Your task to perform on an android device: Go to location settings Image 0: 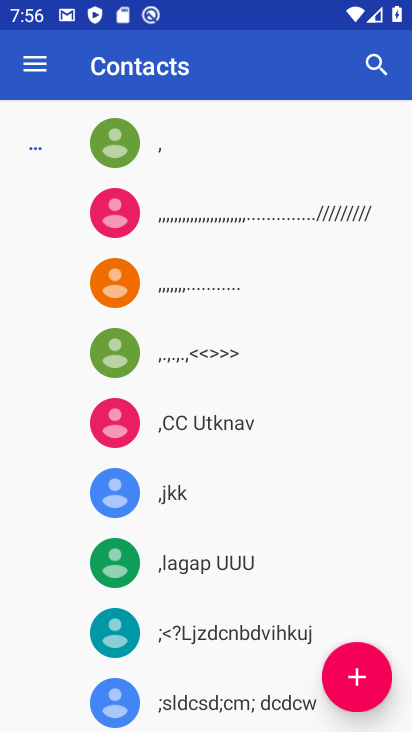
Step 0: press home button
Your task to perform on an android device: Go to location settings Image 1: 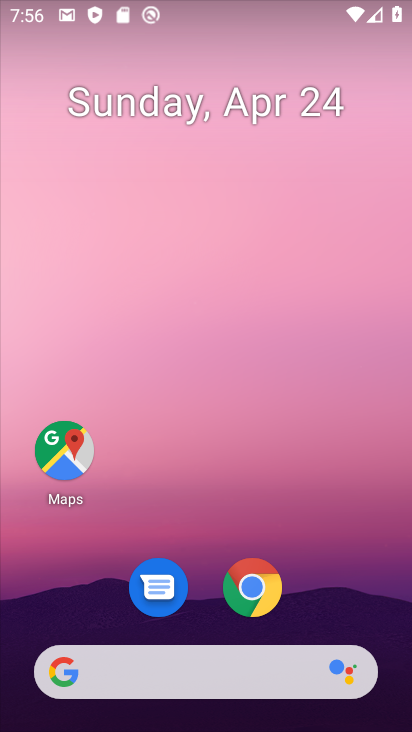
Step 1: drag from (318, 585) to (285, 0)
Your task to perform on an android device: Go to location settings Image 2: 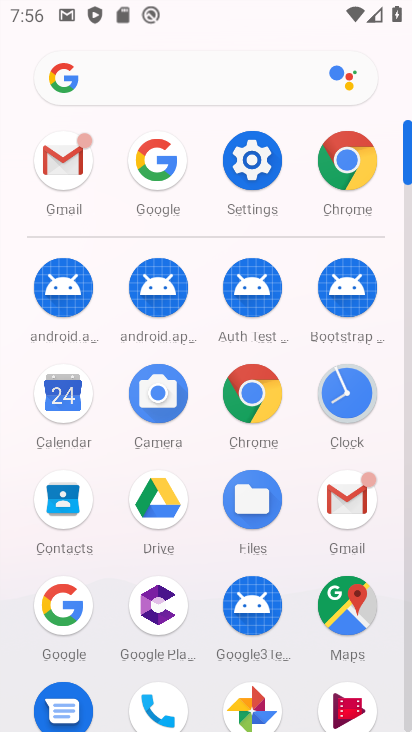
Step 2: click (249, 179)
Your task to perform on an android device: Go to location settings Image 3: 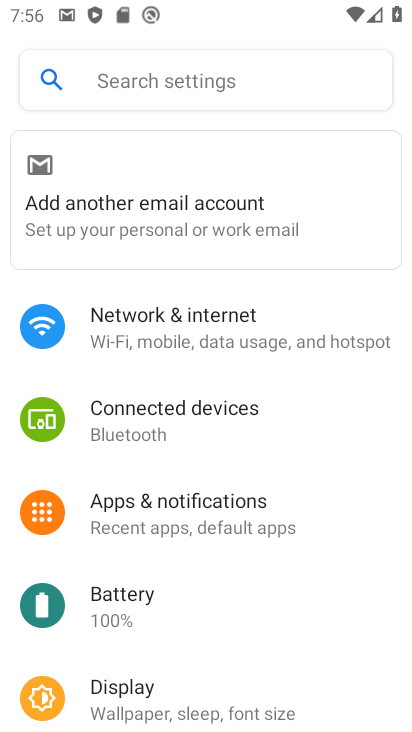
Step 3: drag from (196, 596) to (215, 351)
Your task to perform on an android device: Go to location settings Image 4: 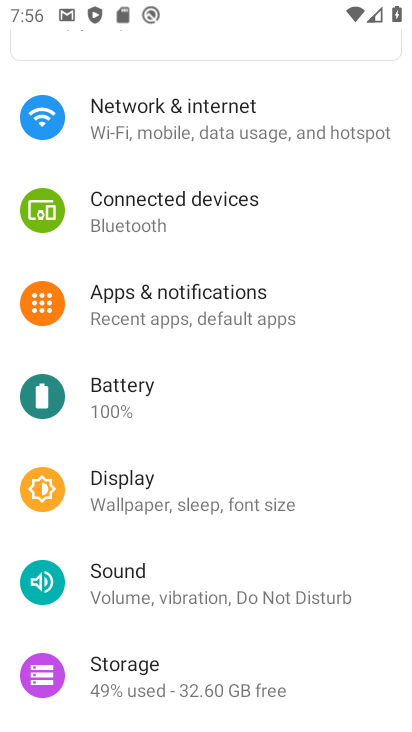
Step 4: drag from (267, 624) to (262, 326)
Your task to perform on an android device: Go to location settings Image 5: 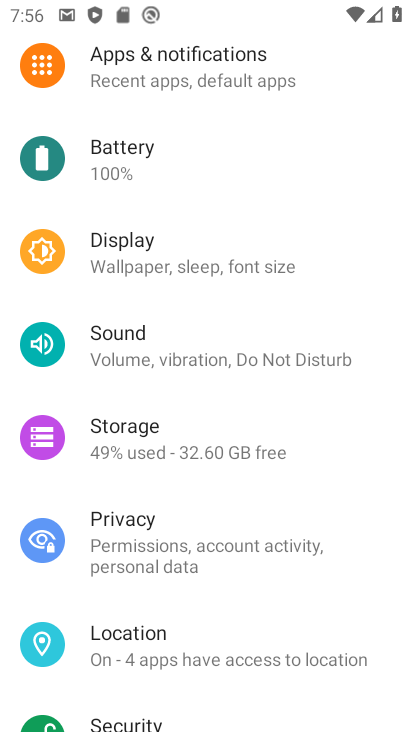
Step 5: click (184, 628)
Your task to perform on an android device: Go to location settings Image 6: 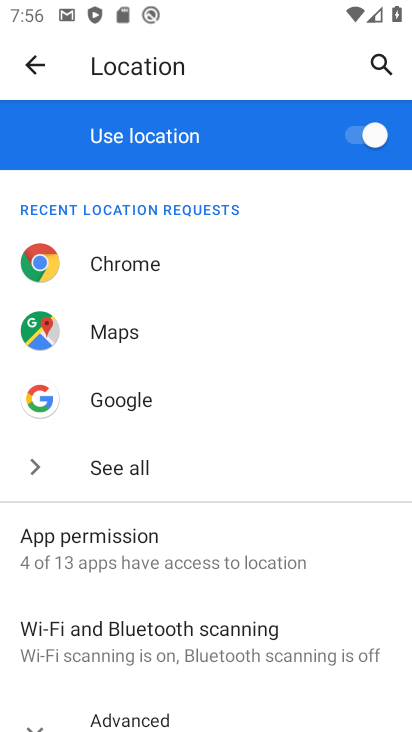
Step 6: task complete